Your task to perform on an android device: Open Google Chrome and click the shortcut for Amazon.com Image 0: 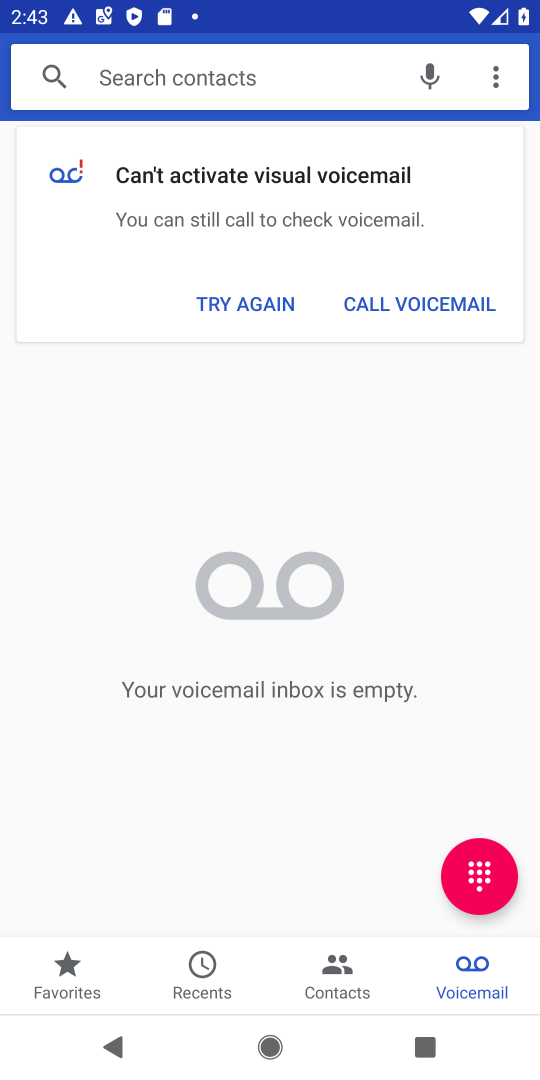
Step 0: press back button
Your task to perform on an android device: Open Google Chrome and click the shortcut for Amazon.com Image 1: 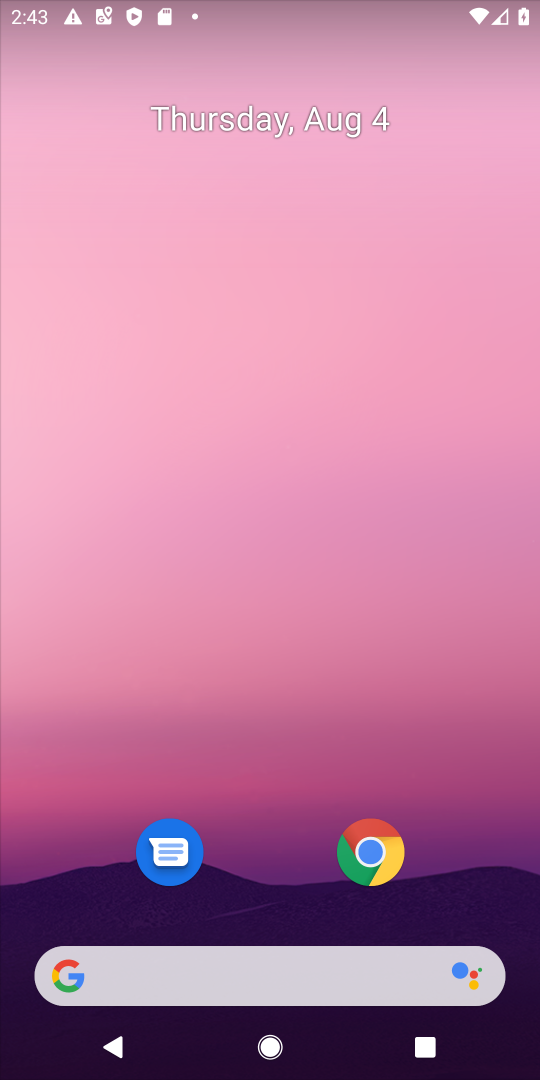
Step 1: click (337, 868)
Your task to perform on an android device: Open Google Chrome and click the shortcut for Amazon.com Image 2: 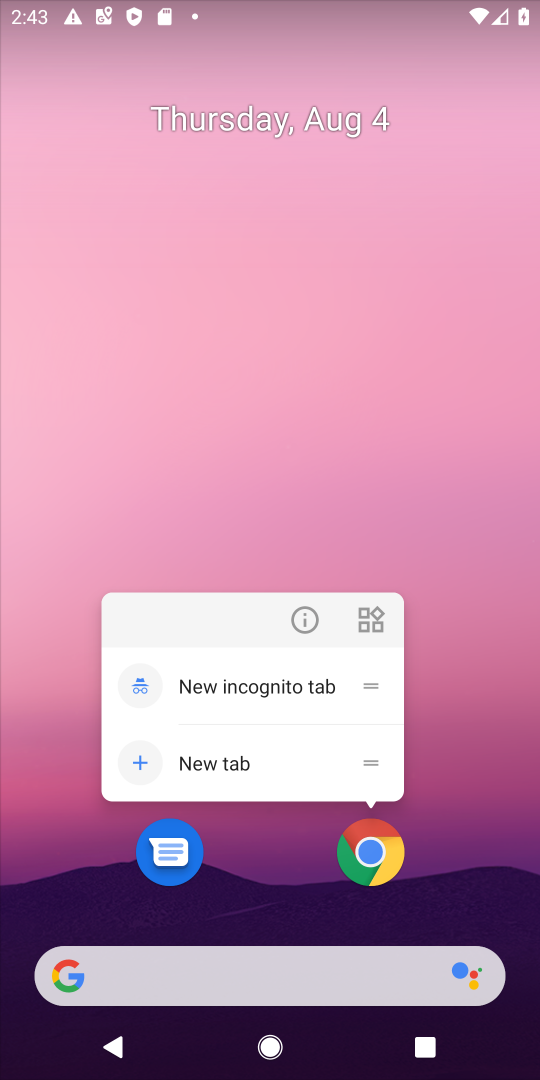
Step 2: click (364, 857)
Your task to perform on an android device: Open Google Chrome and click the shortcut for Amazon.com Image 3: 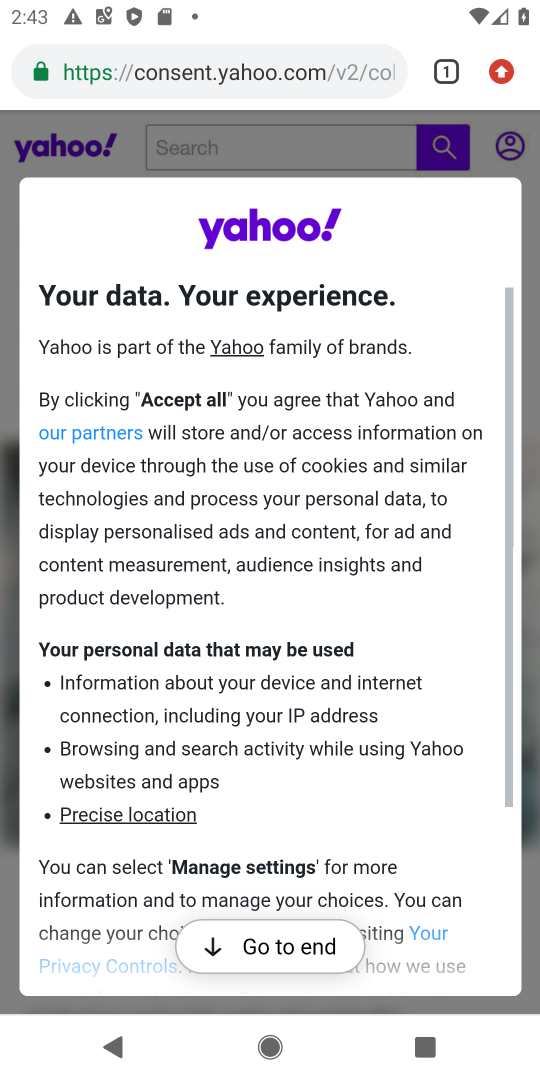
Step 3: click (445, 57)
Your task to perform on an android device: Open Google Chrome and click the shortcut for Amazon.com Image 4: 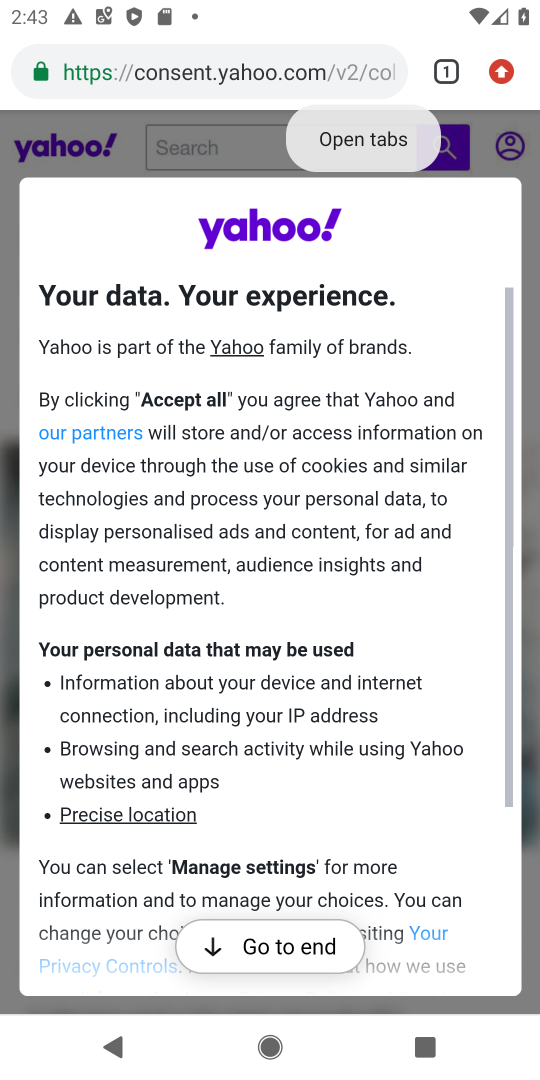
Step 4: click (440, 64)
Your task to perform on an android device: Open Google Chrome and click the shortcut for Amazon.com Image 5: 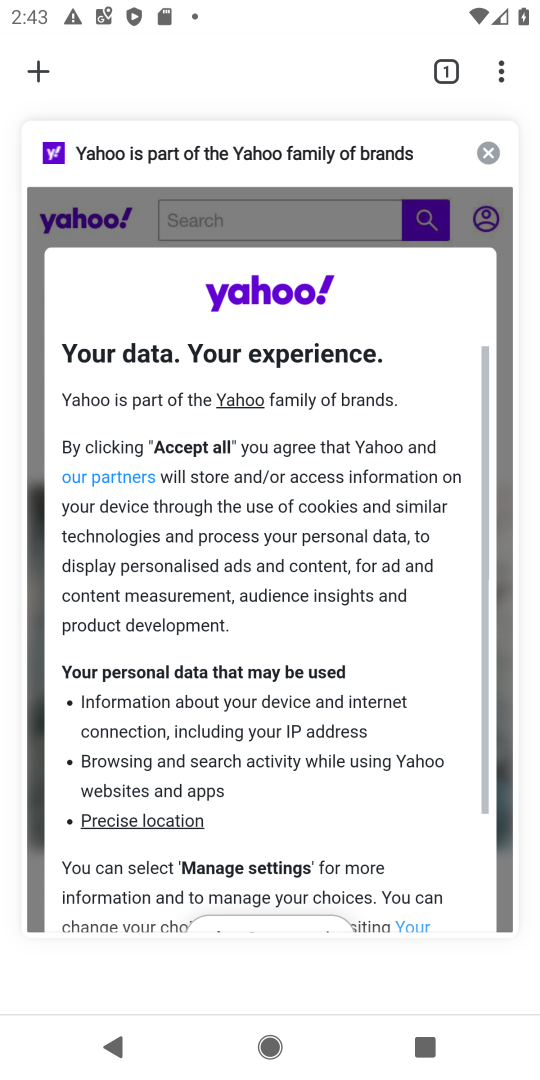
Step 5: click (41, 66)
Your task to perform on an android device: Open Google Chrome and click the shortcut for Amazon.com Image 6: 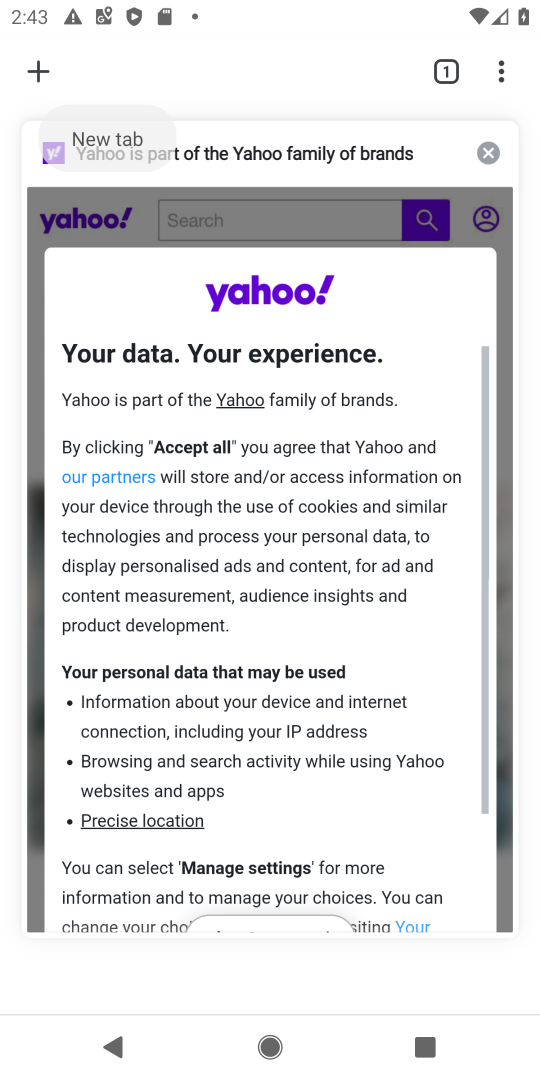
Step 6: click (44, 69)
Your task to perform on an android device: Open Google Chrome and click the shortcut for Amazon.com Image 7: 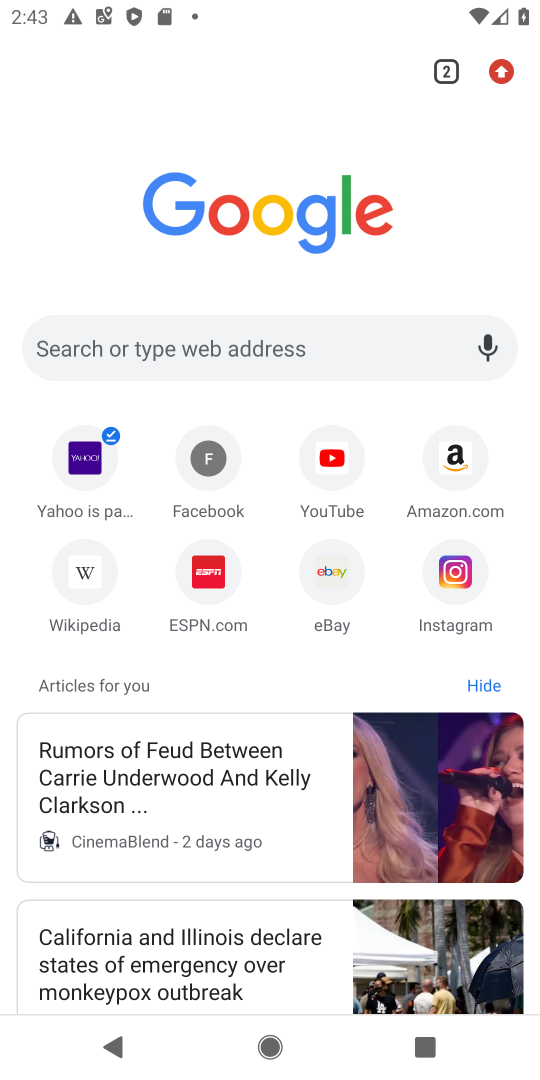
Step 7: click (446, 465)
Your task to perform on an android device: Open Google Chrome and click the shortcut for Amazon.com Image 8: 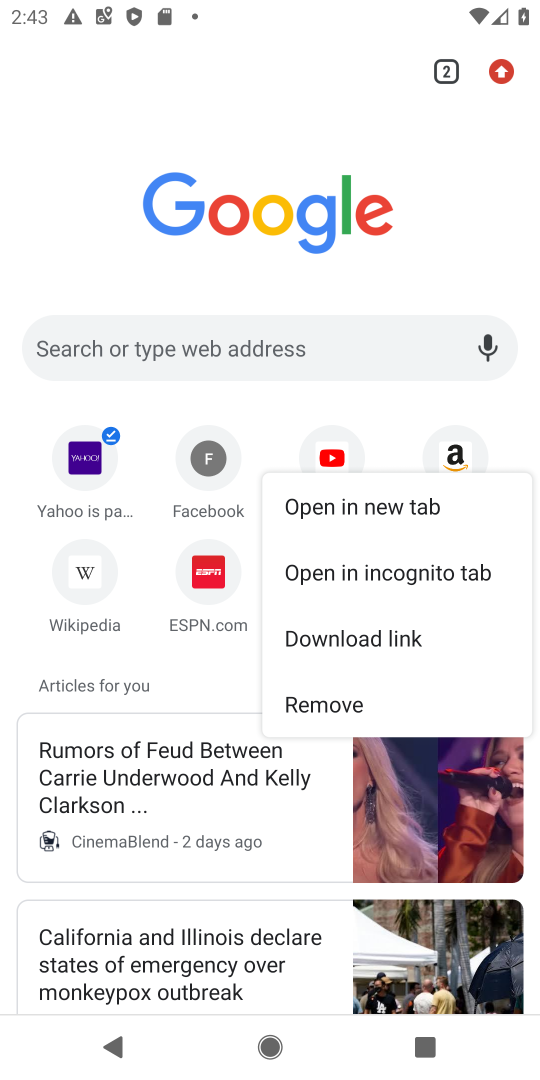
Step 8: click (449, 452)
Your task to perform on an android device: Open Google Chrome and click the shortcut for Amazon.com Image 9: 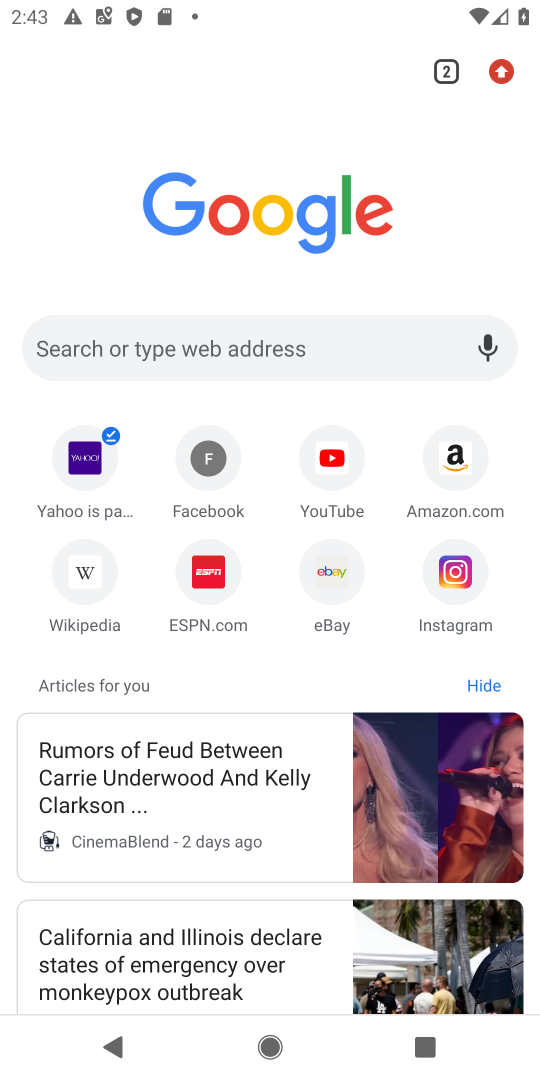
Step 9: click (461, 456)
Your task to perform on an android device: Open Google Chrome and click the shortcut for Amazon.com Image 10: 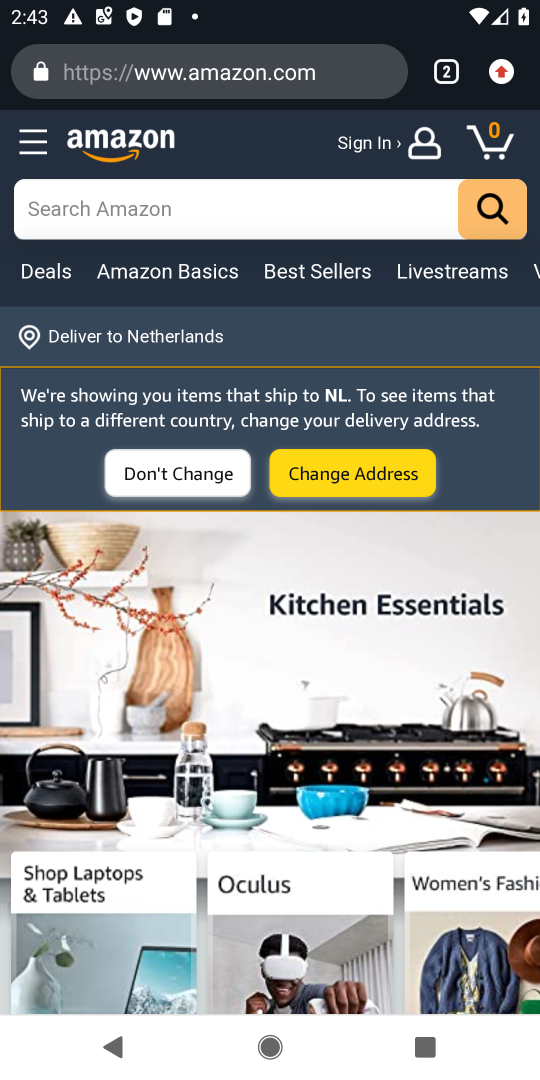
Step 10: task complete